Your task to perform on an android device: Open Google Chrome and open the bookmarks view Image 0: 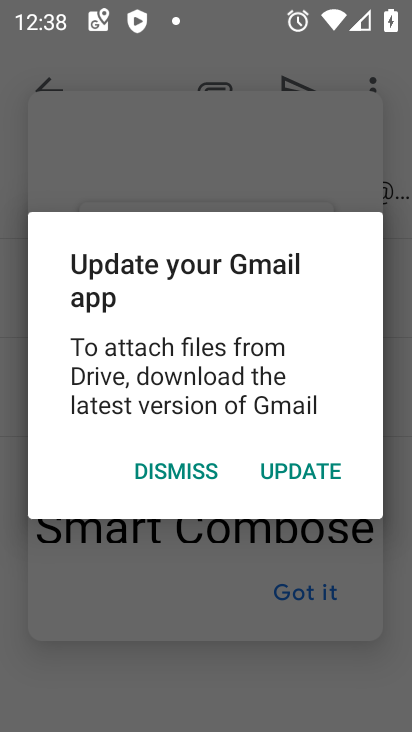
Step 0: press home button
Your task to perform on an android device: Open Google Chrome and open the bookmarks view Image 1: 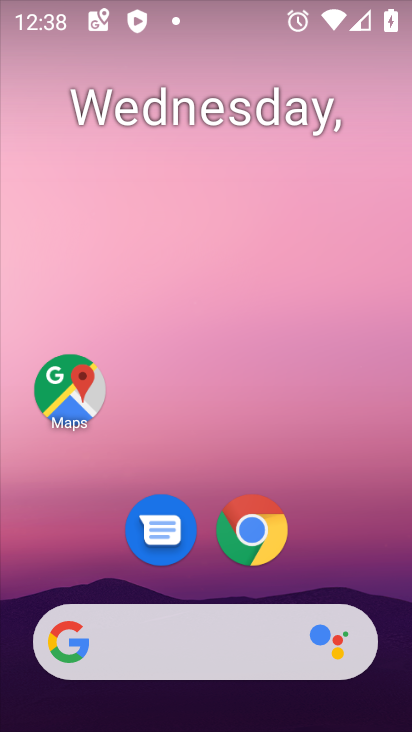
Step 1: click (256, 528)
Your task to perform on an android device: Open Google Chrome and open the bookmarks view Image 2: 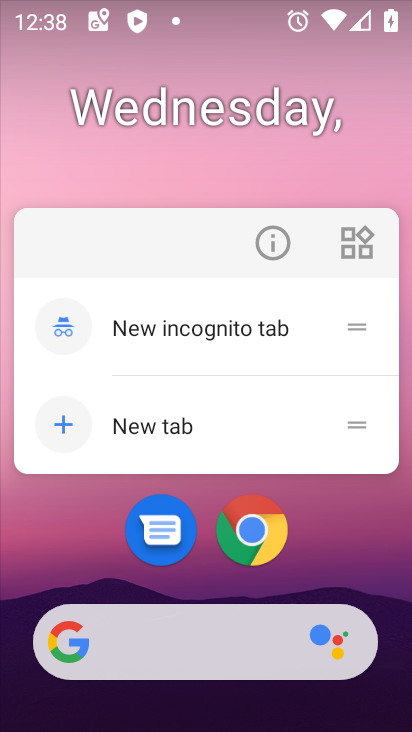
Step 2: click (273, 248)
Your task to perform on an android device: Open Google Chrome and open the bookmarks view Image 3: 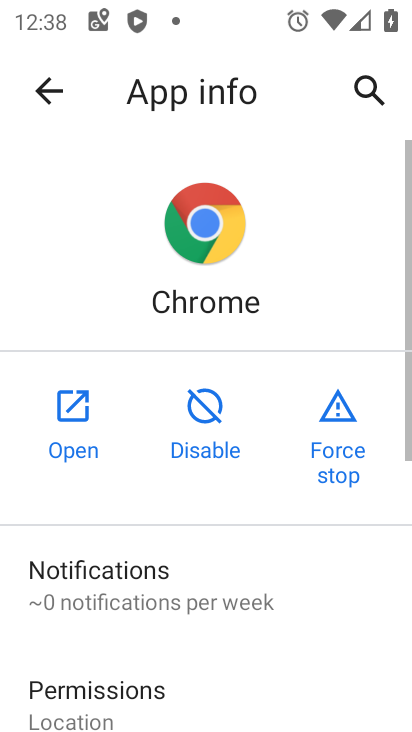
Step 3: click (70, 452)
Your task to perform on an android device: Open Google Chrome and open the bookmarks view Image 4: 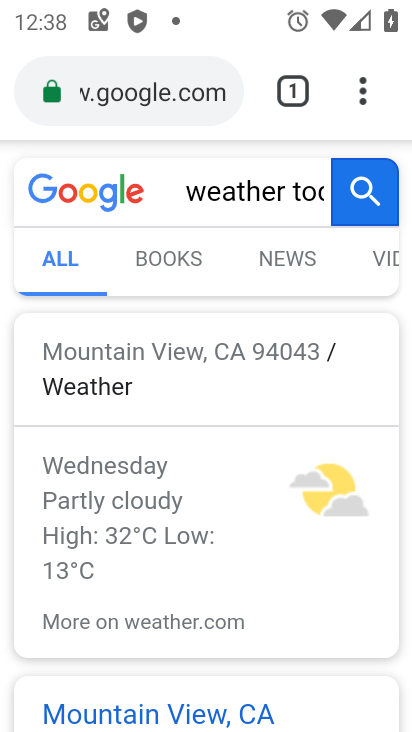
Step 4: click (362, 94)
Your task to perform on an android device: Open Google Chrome and open the bookmarks view Image 5: 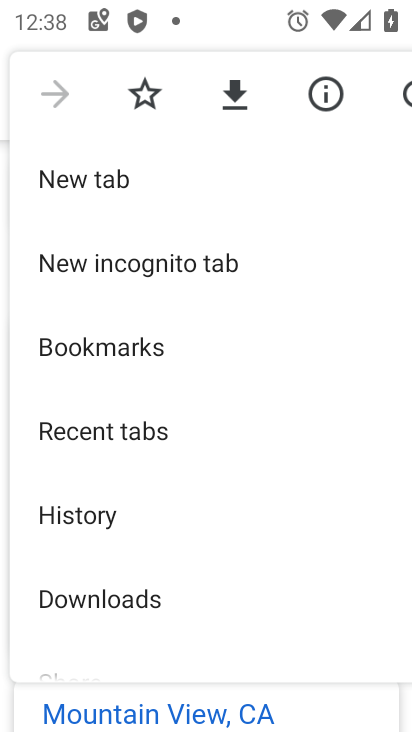
Step 5: click (164, 352)
Your task to perform on an android device: Open Google Chrome and open the bookmarks view Image 6: 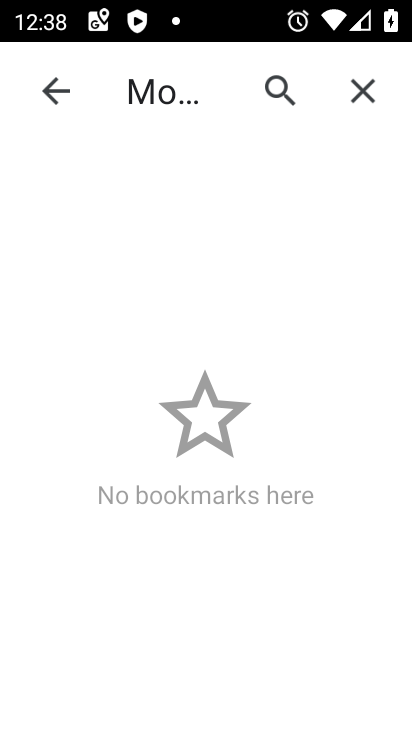
Step 6: task complete